Your task to perform on an android device: Open maps Image 0: 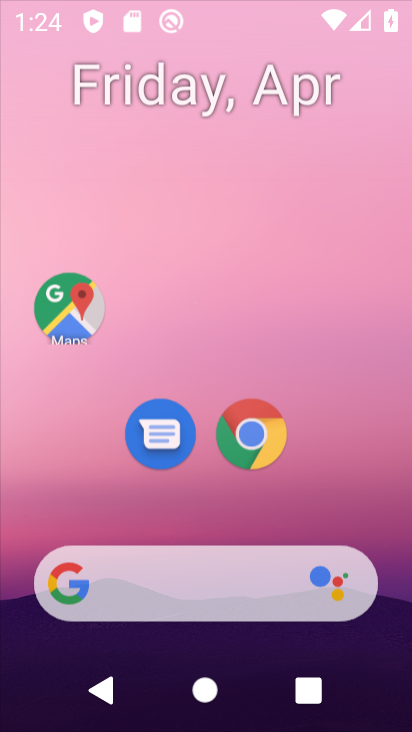
Step 0: click (247, 437)
Your task to perform on an android device: Open maps Image 1: 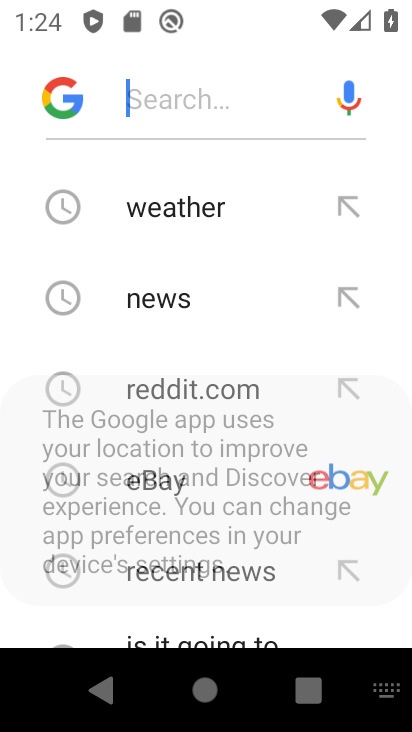
Step 1: press home button
Your task to perform on an android device: Open maps Image 2: 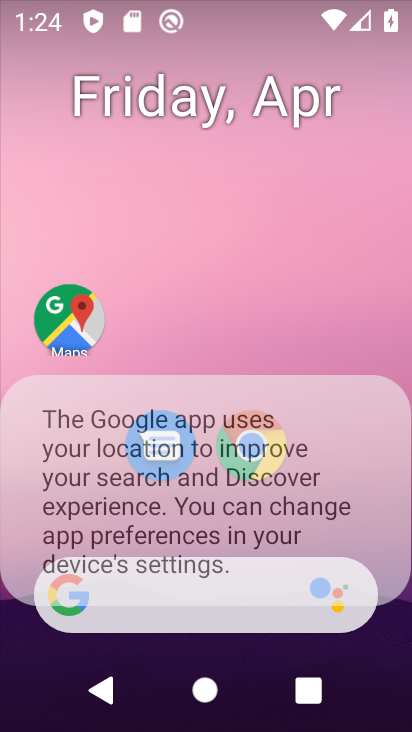
Step 2: click (68, 324)
Your task to perform on an android device: Open maps Image 3: 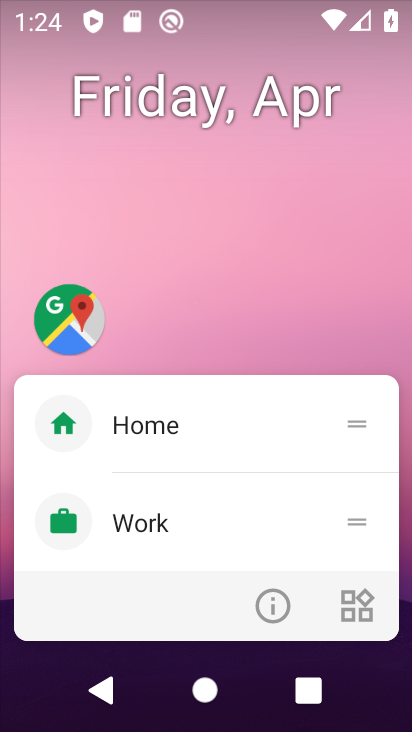
Step 3: click (79, 327)
Your task to perform on an android device: Open maps Image 4: 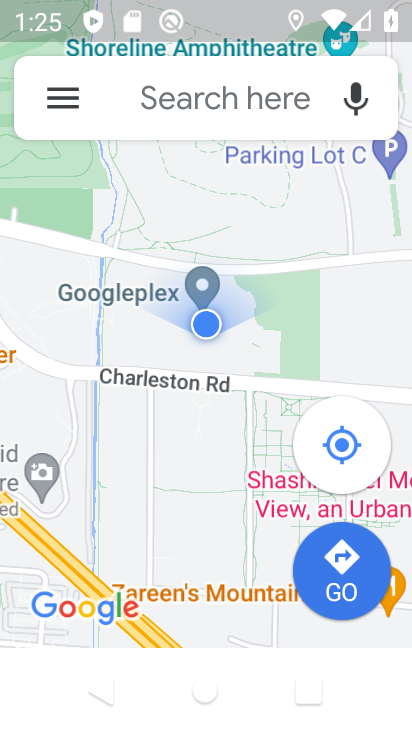
Step 4: task complete